Your task to perform on an android device: Open Google Chrome Image 0: 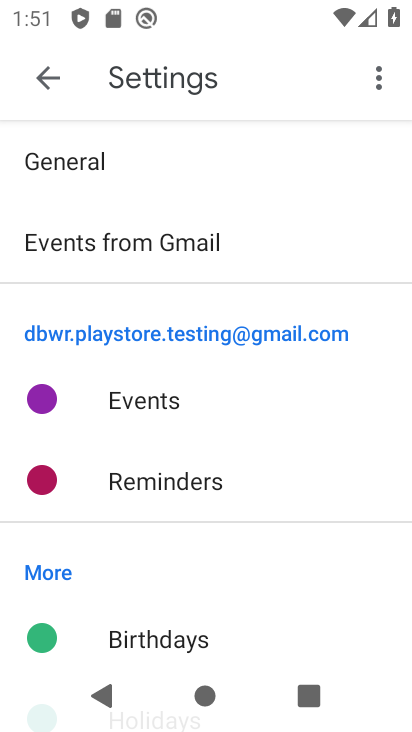
Step 0: press home button
Your task to perform on an android device: Open Google Chrome Image 1: 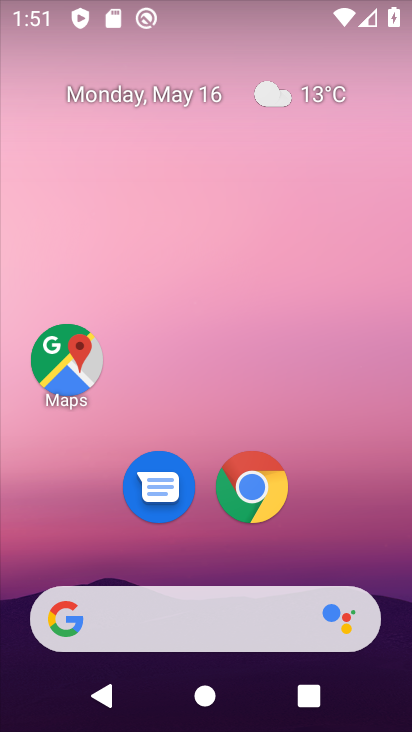
Step 1: drag from (298, 512) to (143, 144)
Your task to perform on an android device: Open Google Chrome Image 2: 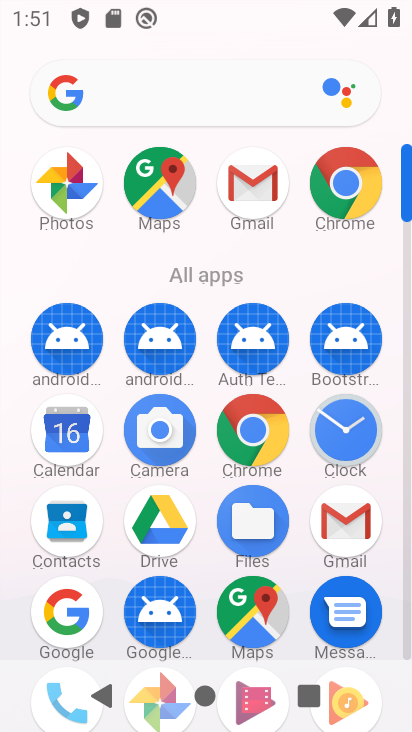
Step 2: click (354, 198)
Your task to perform on an android device: Open Google Chrome Image 3: 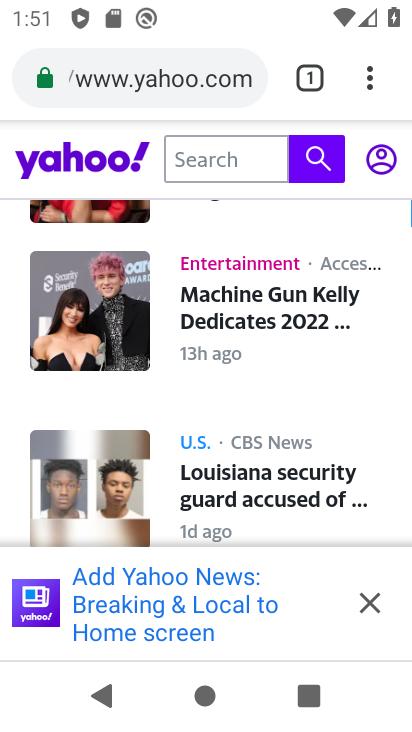
Step 3: task complete